Your task to perform on an android device: turn off airplane mode Image 0: 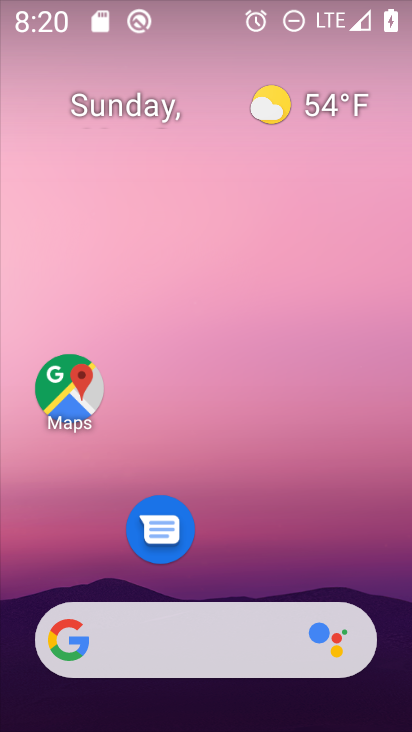
Step 0: drag from (243, 557) to (251, 88)
Your task to perform on an android device: turn off airplane mode Image 1: 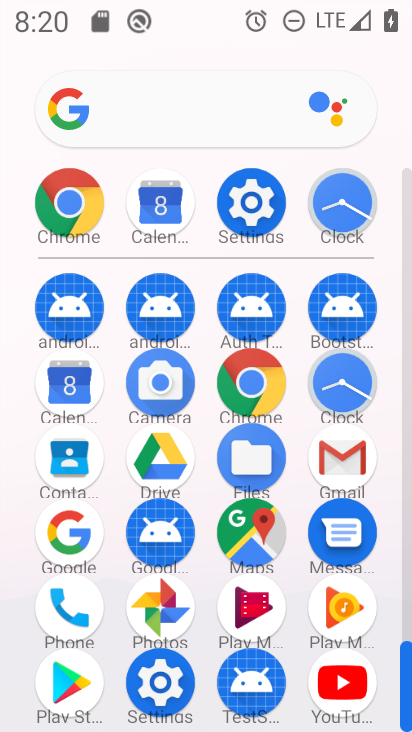
Step 1: click (254, 212)
Your task to perform on an android device: turn off airplane mode Image 2: 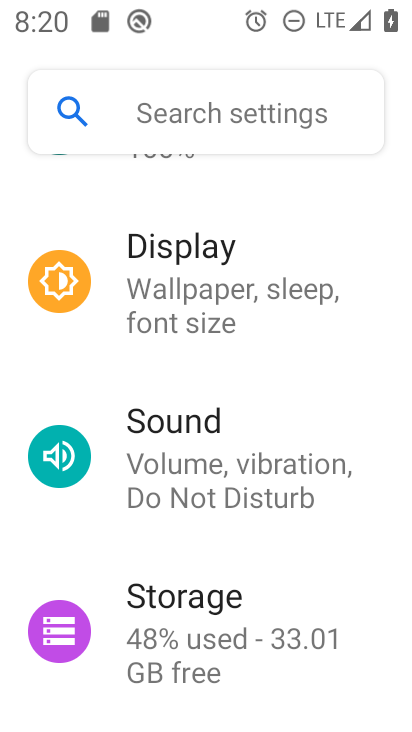
Step 2: drag from (239, 275) to (252, 677)
Your task to perform on an android device: turn off airplane mode Image 3: 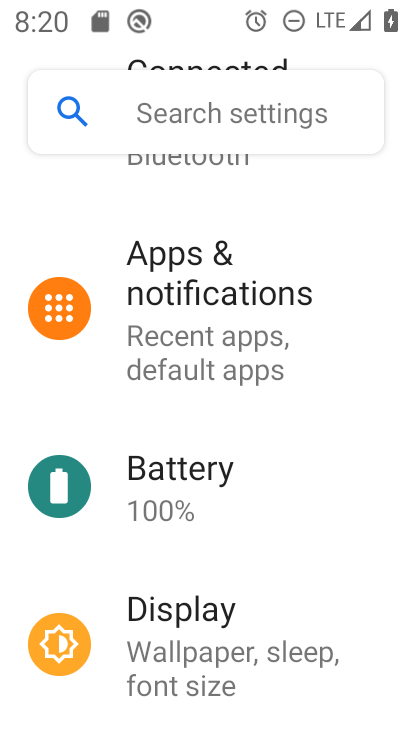
Step 3: drag from (215, 288) to (187, 731)
Your task to perform on an android device: turn off airplane mode Image 4: 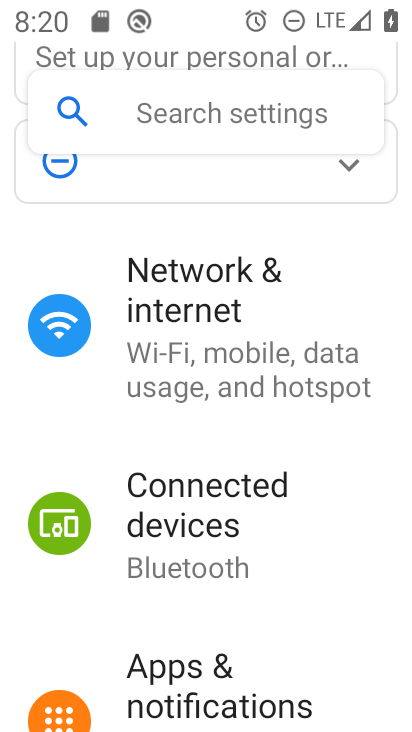
Step 4: click (177, 347)
Your task to perform on an android device: turn off airplane mode Image 5: 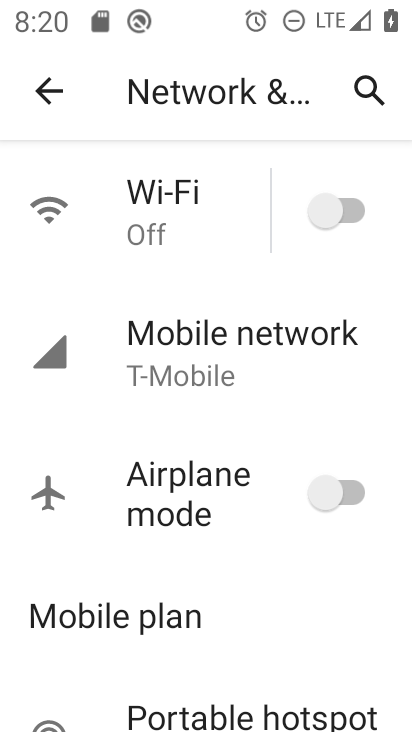
Step 5: task complete